Your task to perform on an android device: Go to settings Image 0: 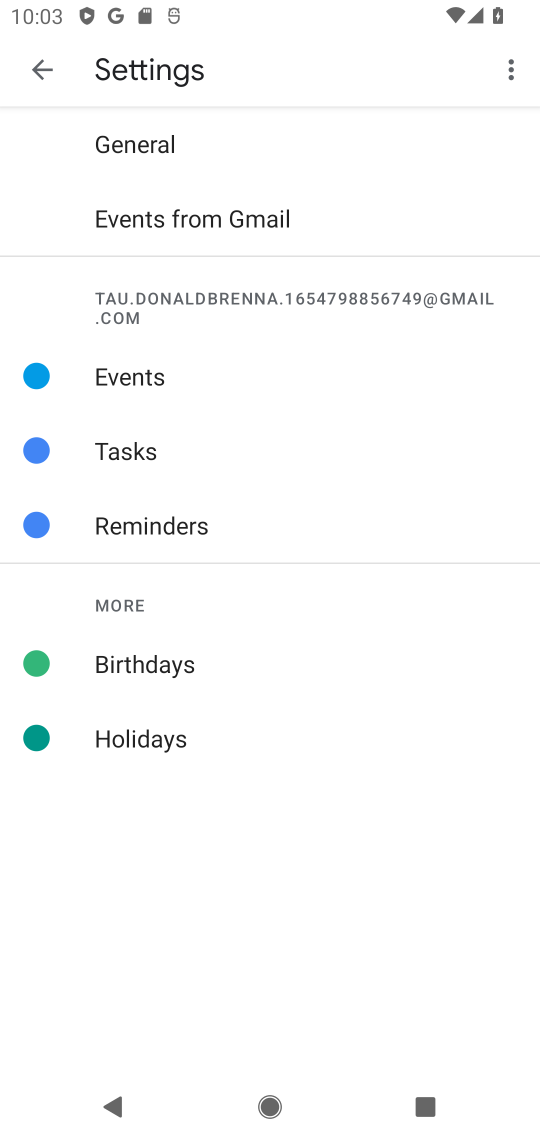
Step 0: press home button
Your task to perform on an android device: Go to settings Image 1: 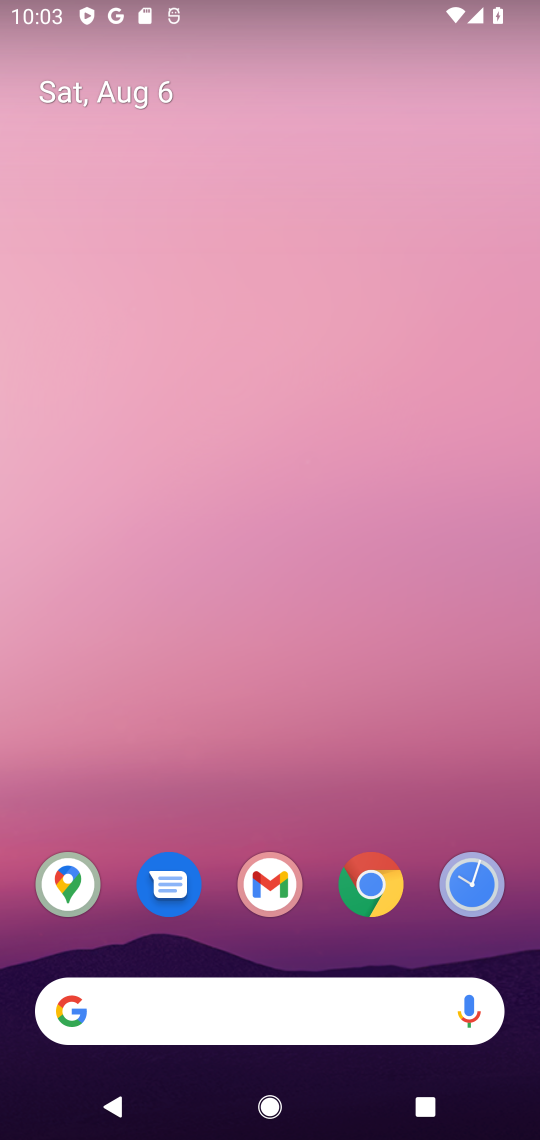
Step 1: drag from (313, 951) to (329, 161)
Your task to perform on an android device: Go to settings Image 2: 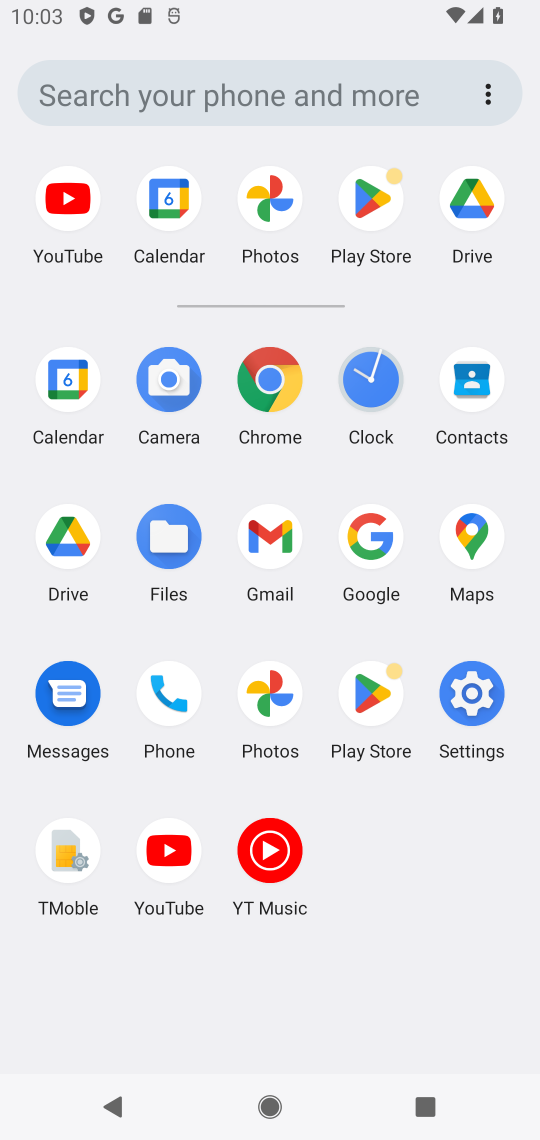
Step 2: click (473, 694)
Your task to perform on an android device: Go to settings Image 3: 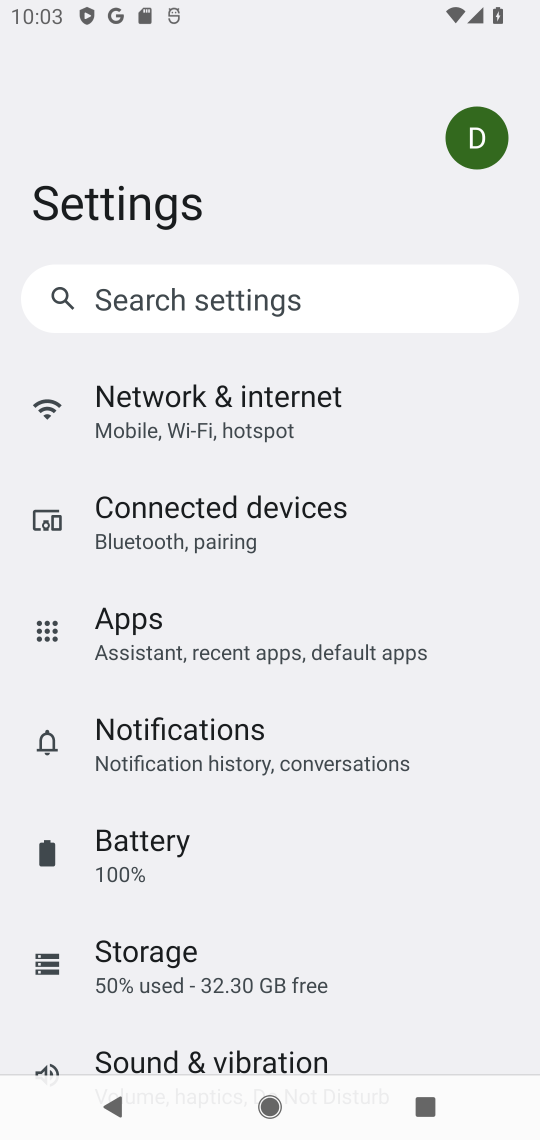
Step 3: task complete